Your task to perform on an android device: change notification settings in the gmail app Image 0: 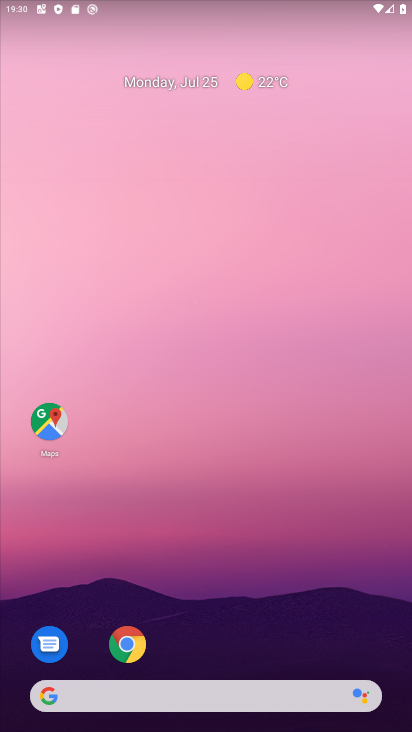
Step 0: press home button
Your task to perform on an android device: change notification settings in the gmail app Image 1: 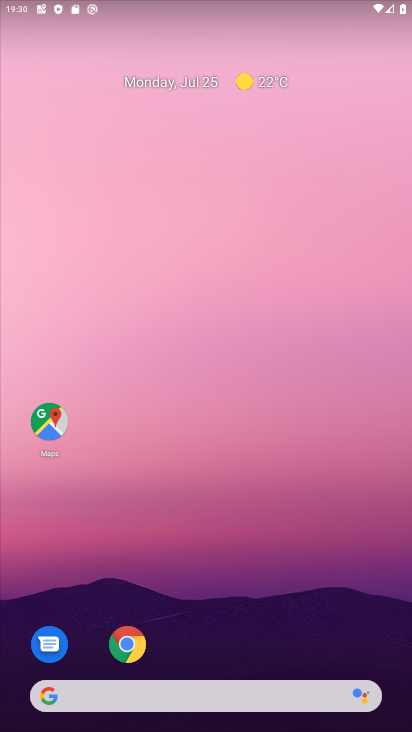
Step 1: drag from (232, 657) to (239, 52)
Your task to perform on an android device: change notification settings in the gmail app Image 2: 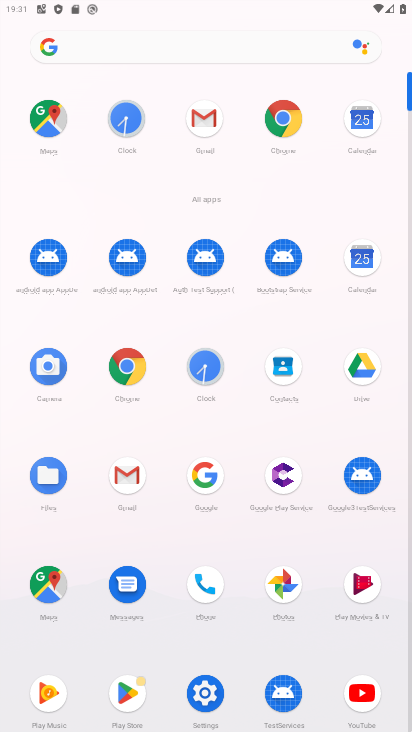
Step 2: click (202, 119)
Your task to perform on an android device: change notification settings in the gmail app Image 3: 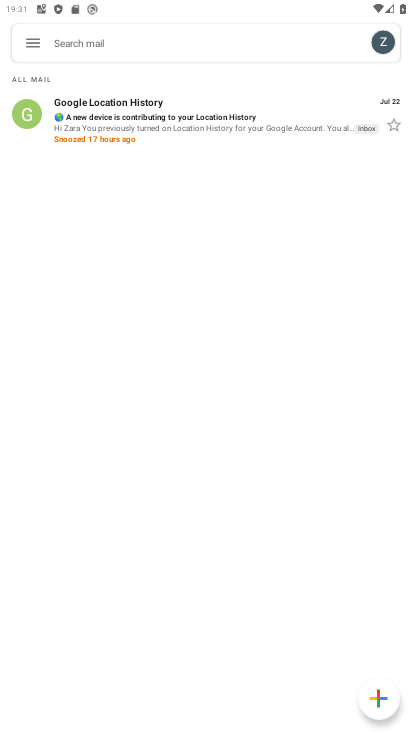
Step 3: click (25, 36)
Your task to perform on an android device: change notification settings in the gmail app Image 4: 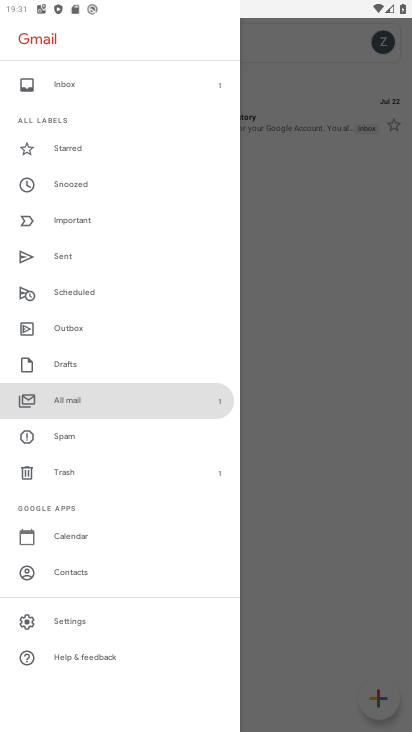
Step 4: click (99, 616)
Your task to perform on an android device: change notification settings in the gmail app Image 5: 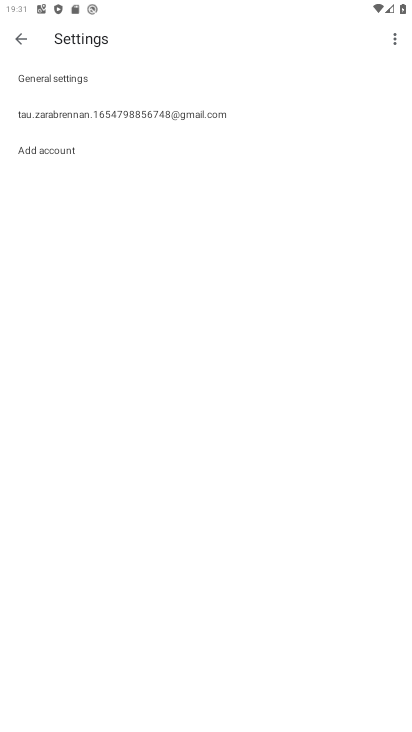
Step 5: click (93, 79)
Your task to perform on an android device: change notification settings in the gmail app Image 6: 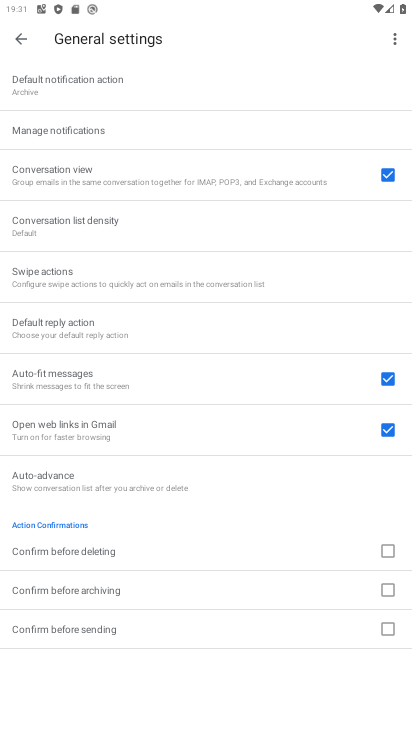
Step 6: click (112, 127)
Your task to perform on an android device: change notification settings in the gmail app Image 7: 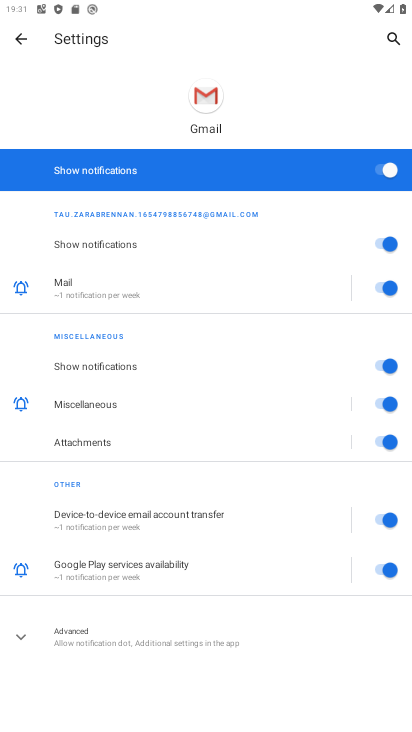
Step 7: click (382, 166)
Your task to perform on an android device: change notification settings in the gmail app Image 8: 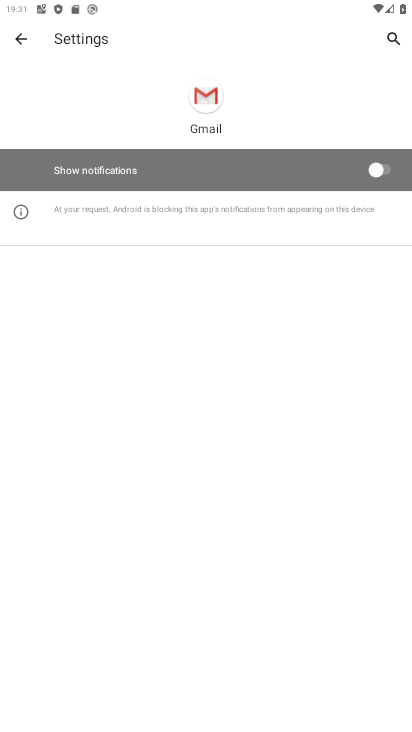
Step 8: task complete